Your task to perform on an android device: Go to Google Image 0: 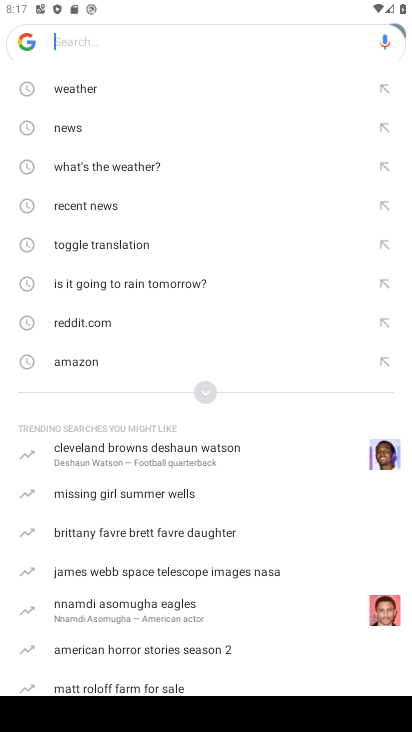
Step 0: task complete